Your task to perform on an android device: What's the weather going to be tomorrow? Image 0: 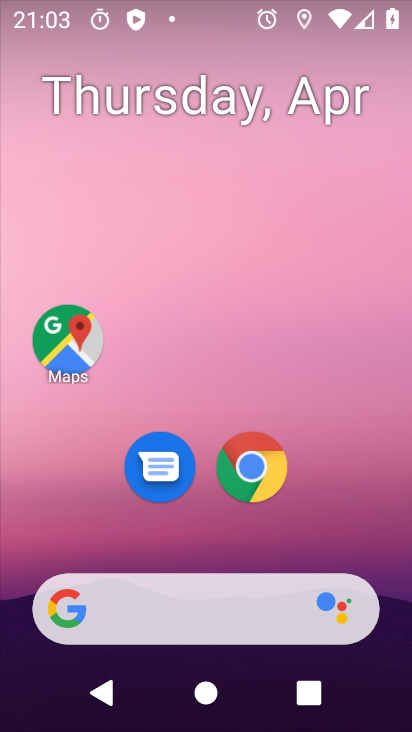
Step 0: click (221, 603)
Your task to perform on an android device: What's the weather going to be tomorrow? Image 1: 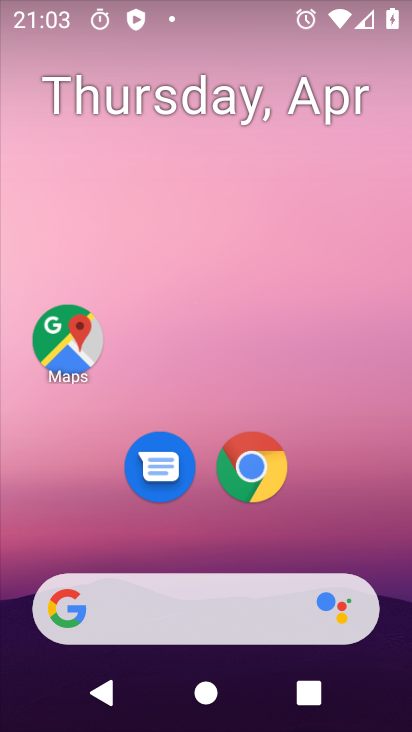
Step 1: click (204, 586)
Your task to perform on an android device: What's the weather going to be tomorrow? Image 2: 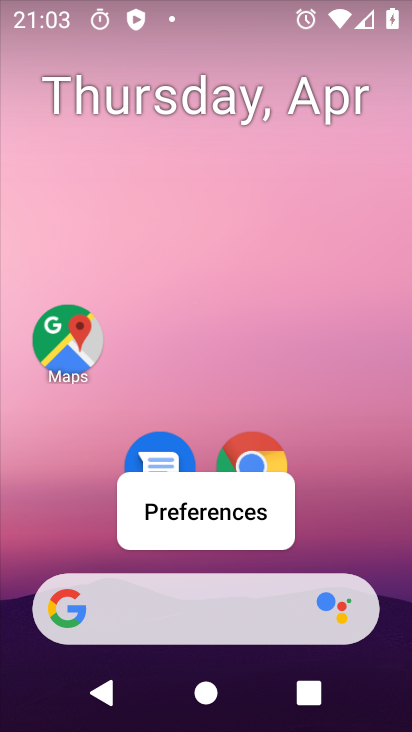
Step 2: click (183, 618)
Your task to perform on an android device: What's the weather going to be tomorrow? Image 3: 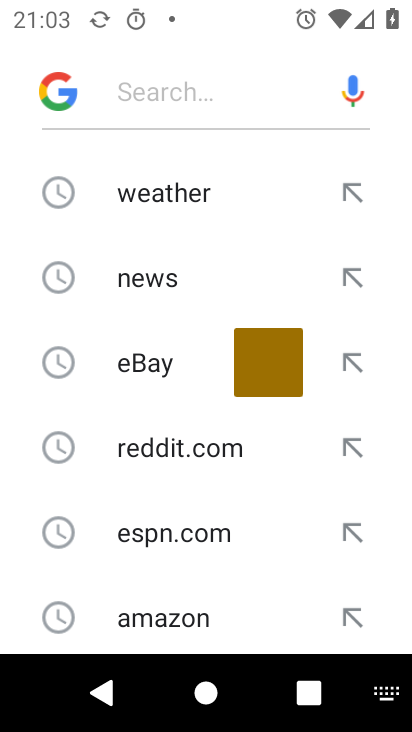
Step 3: click (153, 175)
Your task to perform on an android device: What's the weather going to be tomorrow? Image 4: 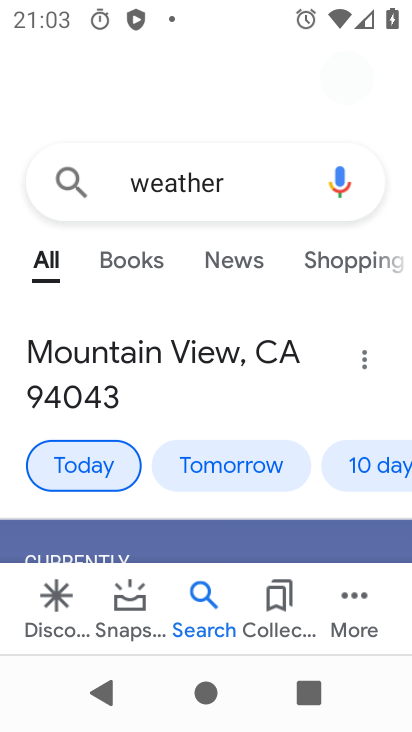
Step 4: task complete